Your task to perform on an android device: Go to Google Image 0: 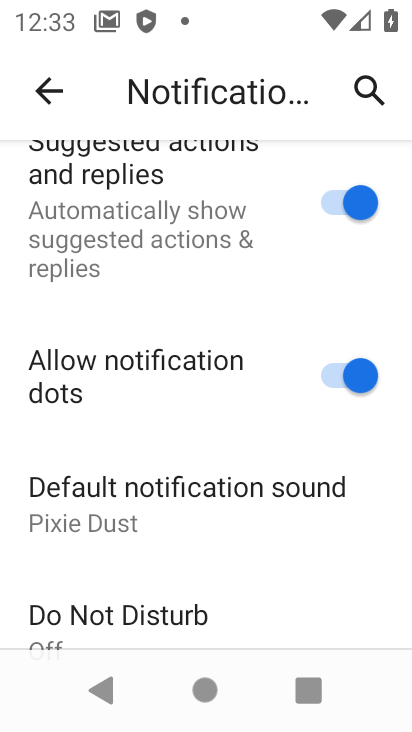
Step 0: press home button
Your task to perform on an android device: Go to Google Image 1: 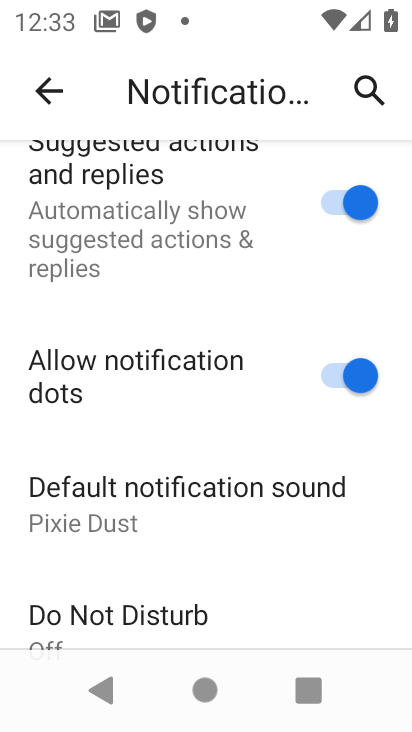
Step 1: press home button
Your task to perform on an android device: Go to Google Image 2: 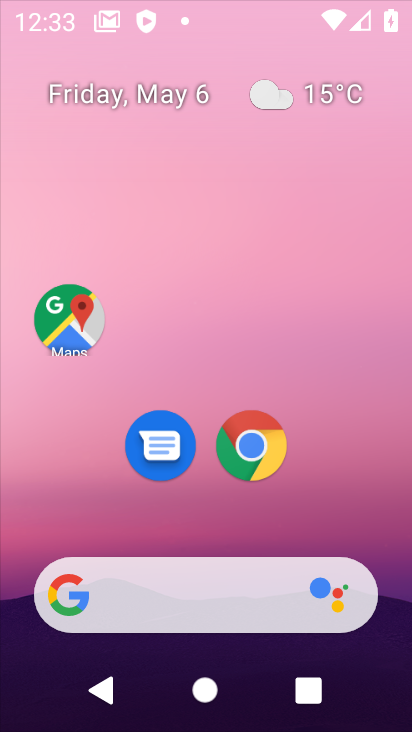
Step 2: press home button
Your task to perform on an android device: Go to Google Image 3: 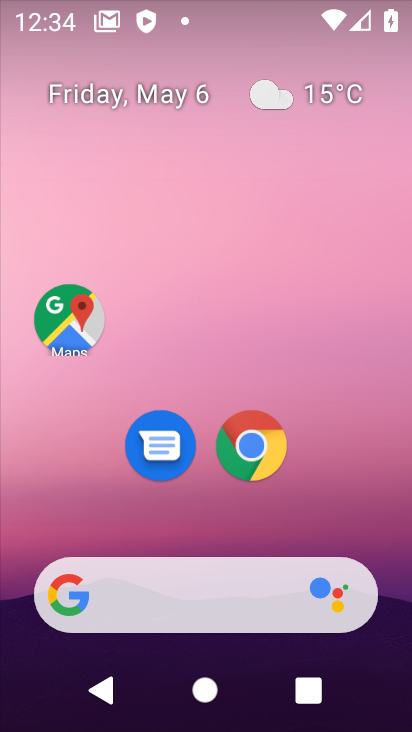
Step 3: press home button
Your task to perform on an android device: Go to Google Image 4: 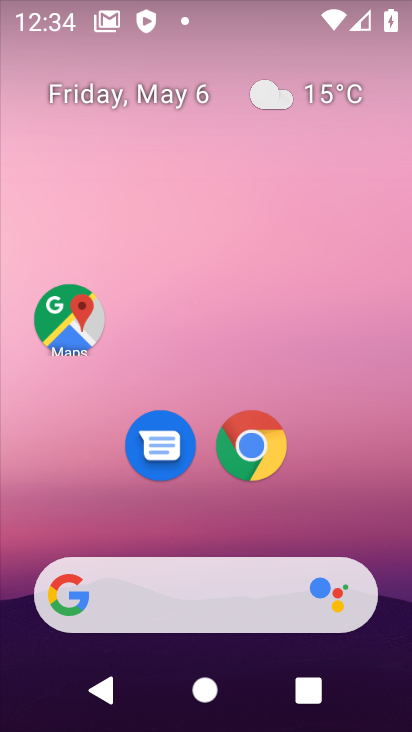
Step 4: press home button
Your task to perform on an android device: Go to Google Image 5: 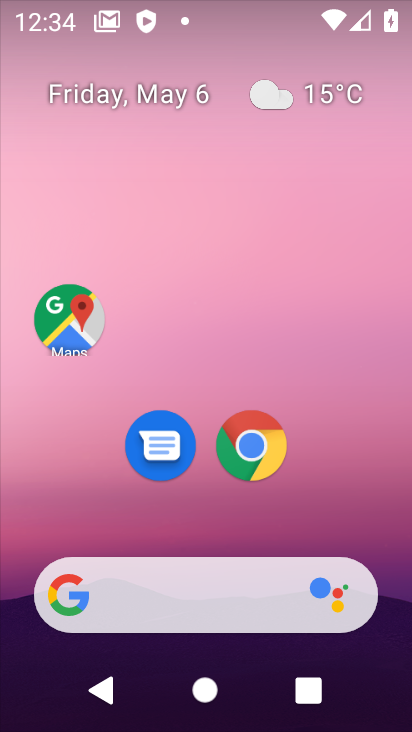
Step 5: drag from (334, 521) to (52, 48)
Your task to perform on an android device: Go to Google Image 6: 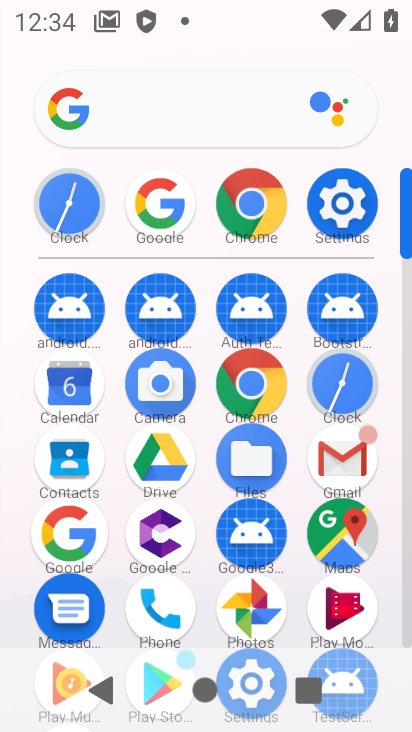
Step 6: click (79, 537)
Your task to perform on an android device: Go to Google Image 7: 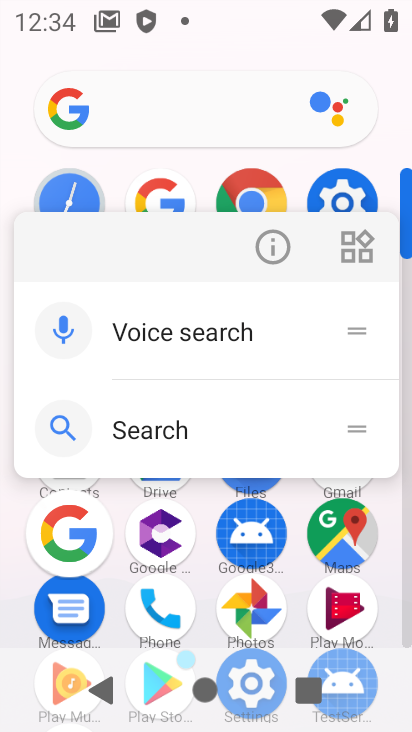
Step 7: click (79, 537)
Your task to perform on an android device: Go to Google Image 8: 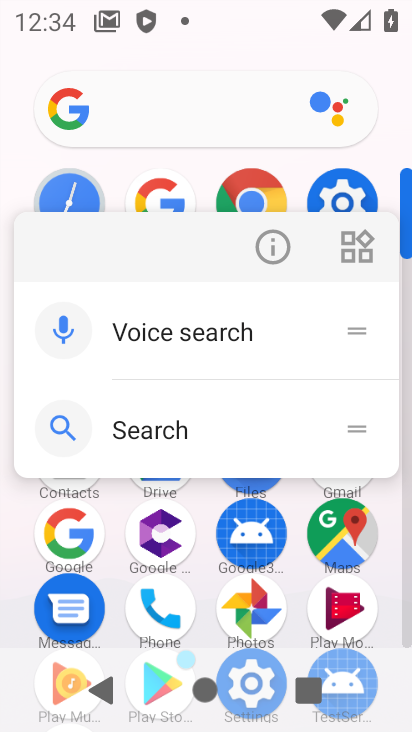
Step 8: click (78, 538)
Your task to perform on an android device: Go to Google Image 9: 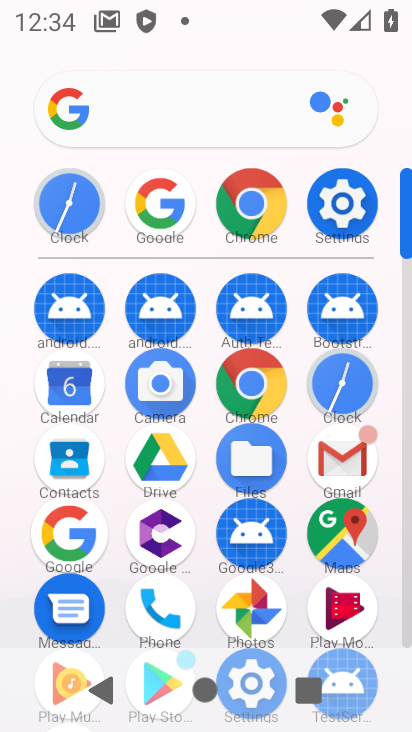
Step 9: click (78, 538)
Your task to perform on an android device: Go to Google Image 10: 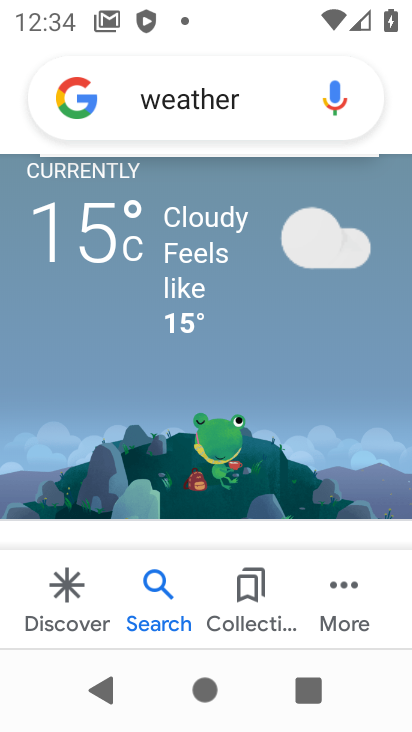
Step 10: click (60, 511)
Your task to perform on an android device: Go to Google Image 11: 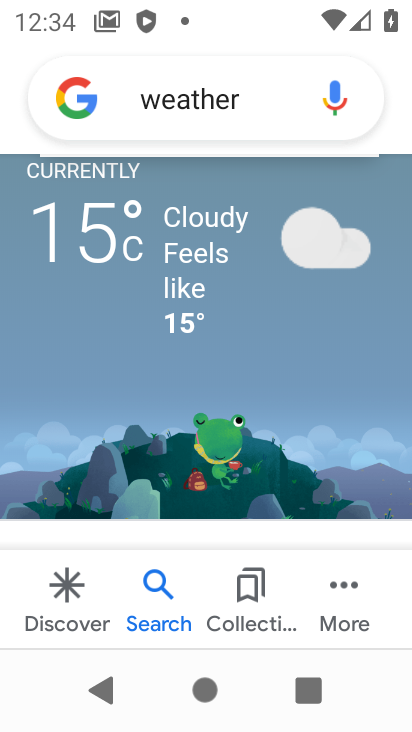
Step 11: click (60, 511)
Your task to perform on an android device: Go to Google Image 12: 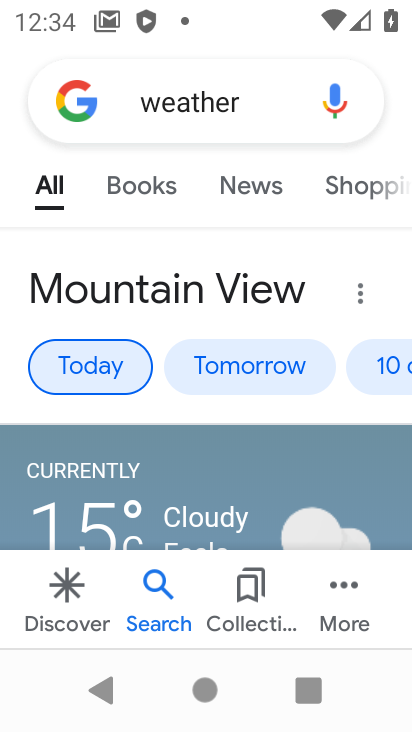
Step 12: task complete